Your task to perform on an android device: find which apps use the phone's location Image 0: 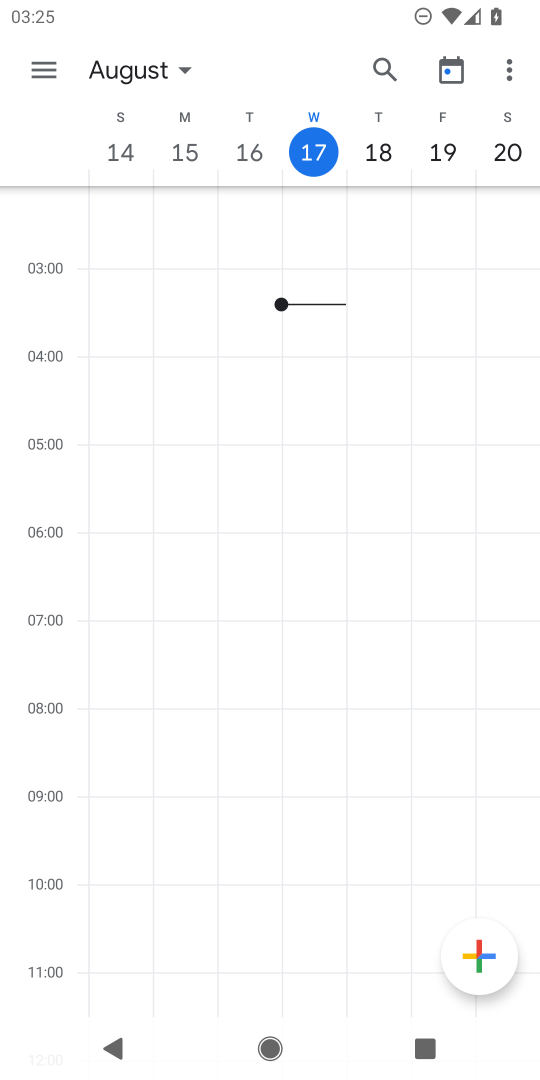
Step 0: press home button
Your task to perform on an android device: find which apps use the phone's location Image 1: 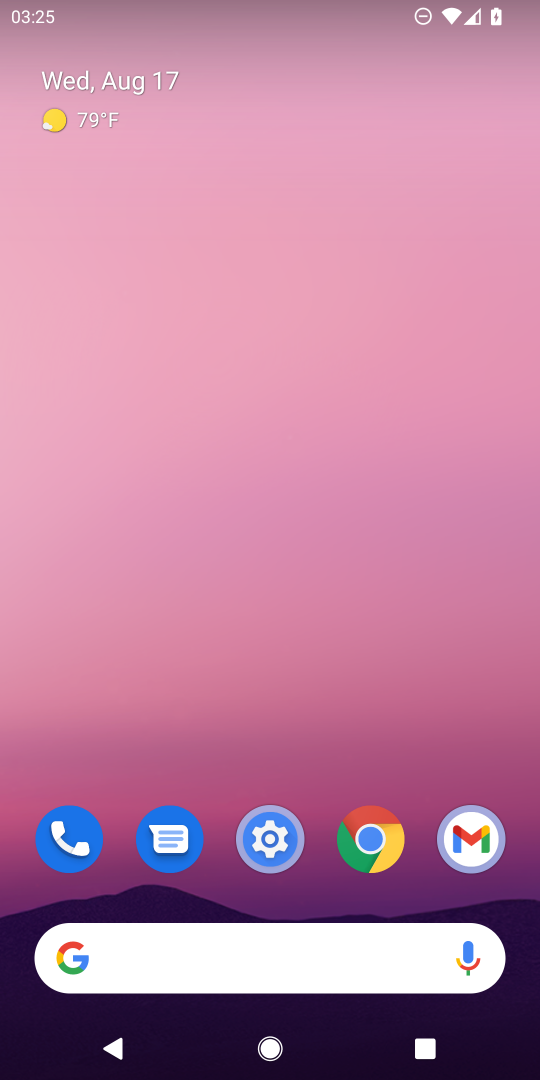
Step 1: drag from (311, 896) to (129, 10)
Your task to perform on an android device: find which apps use the phone's location Image 2: 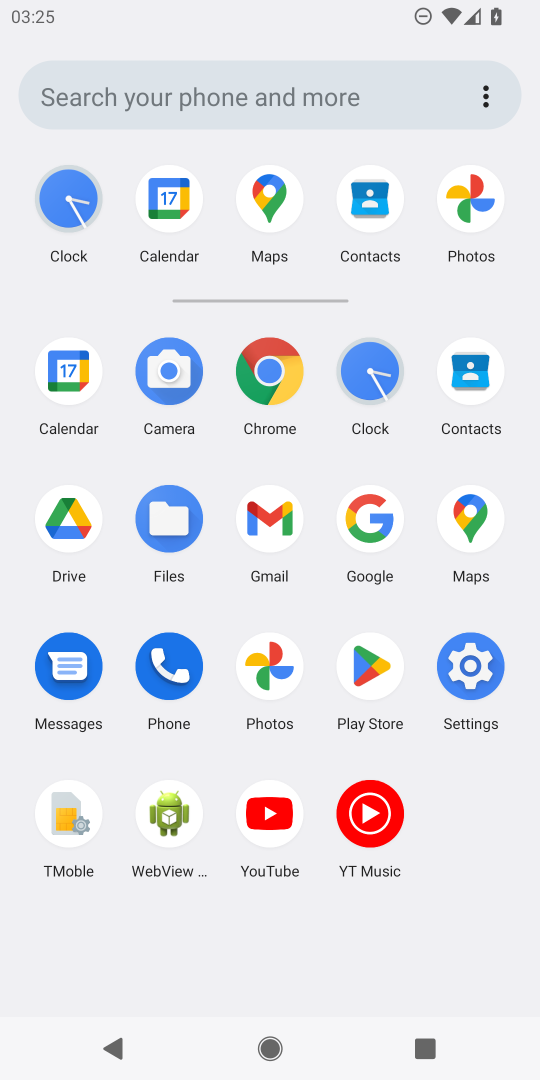
Step 2: click (483, 685)
Your task to perform on an android device: find which apps use the phone's location Image 3: 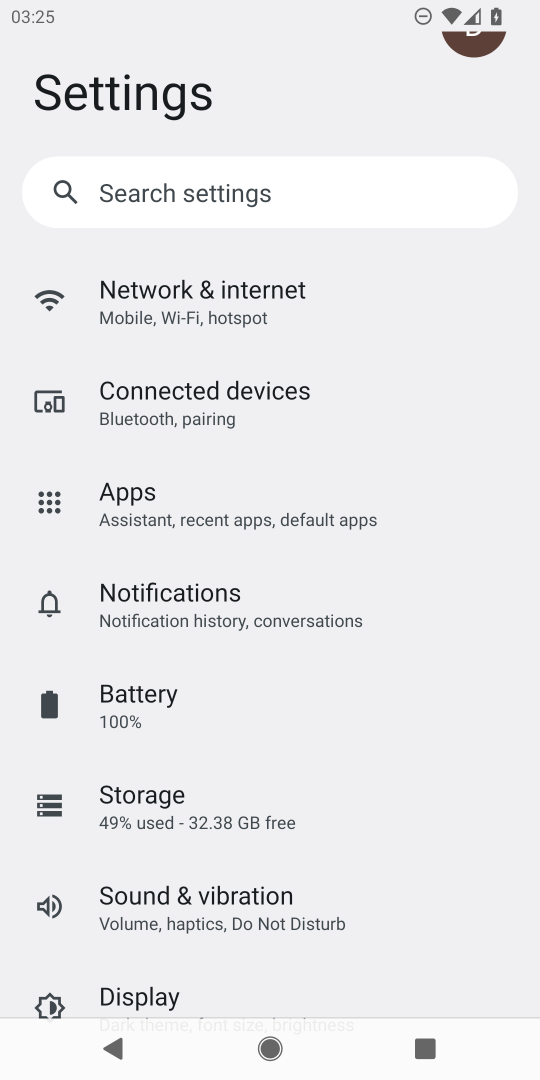
Step 3: drag from (126, 961) to (76, 486)
Your task to perform on an android device: find which apps use the phone's location Image 4: 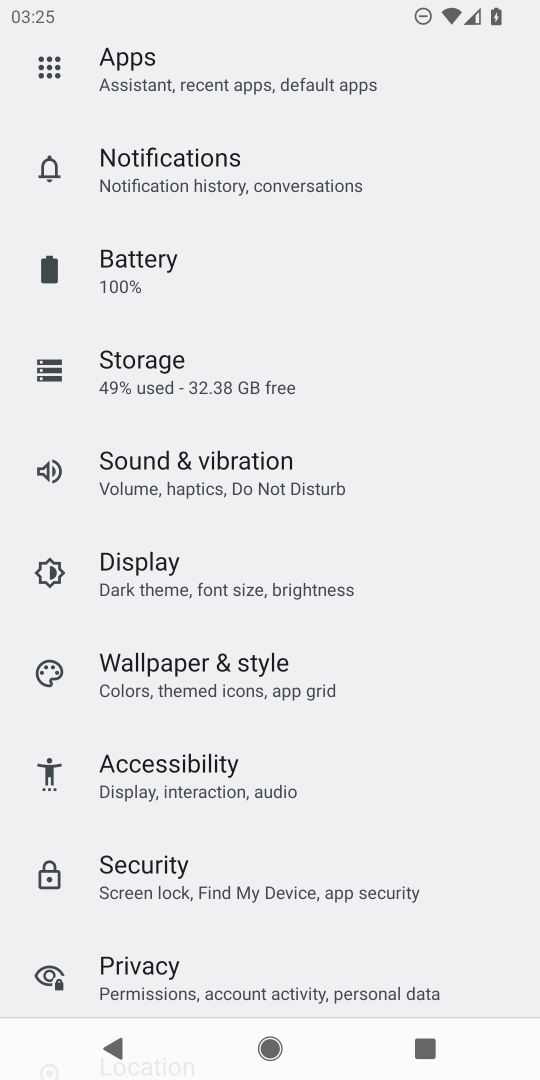
Step 4: drag from (187, 907) to (119, 308)
Your task to perform on an android device: find which apps use the phone's location Image 5: 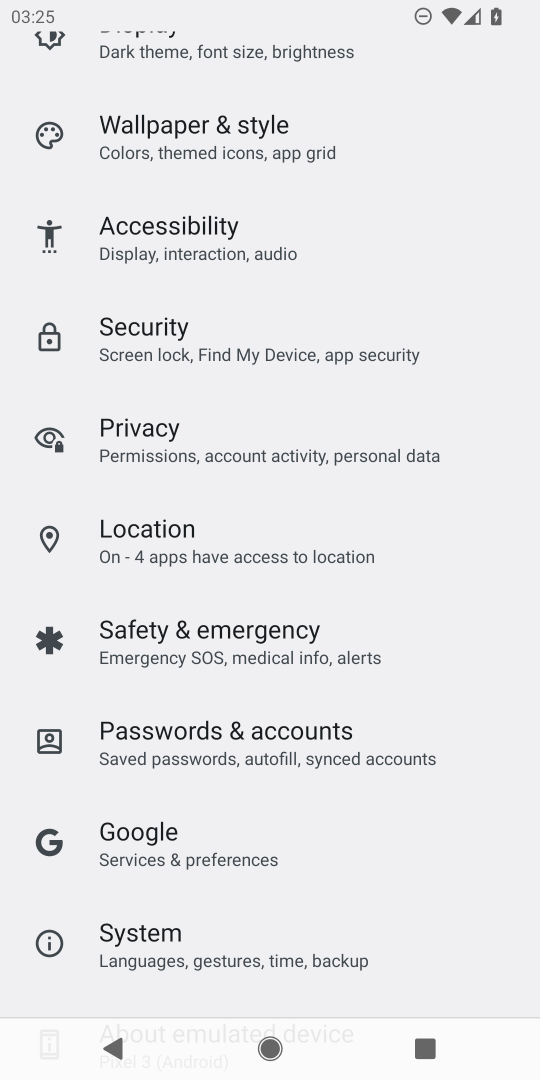
Step 5: click (167, 521)
Your task to perform on an android device: find which apps use the phone's location Image 6: 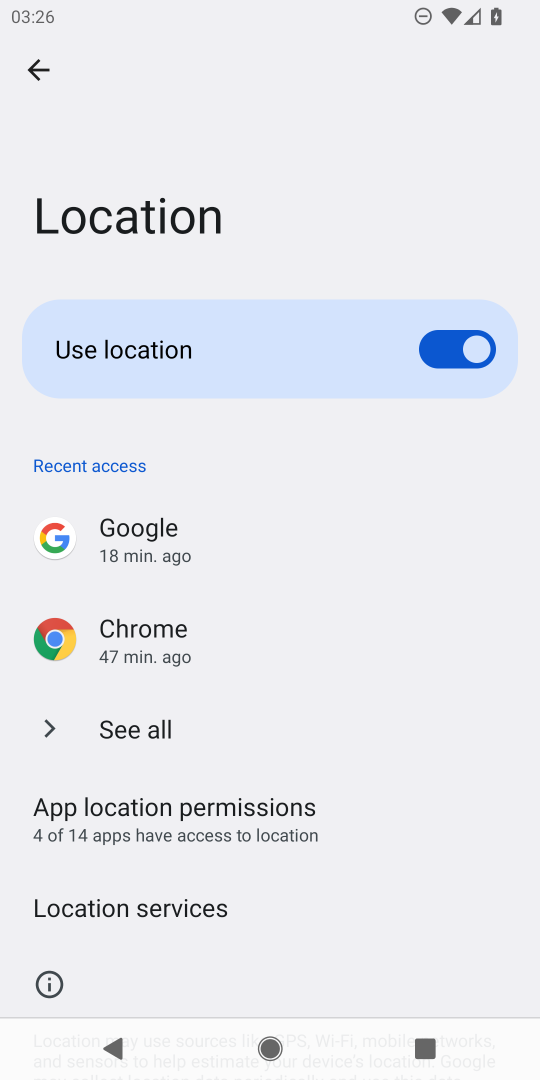
Step 6: click (176, 823)
Your task to perform on an android device: find which apps use the phone's location Image 7: 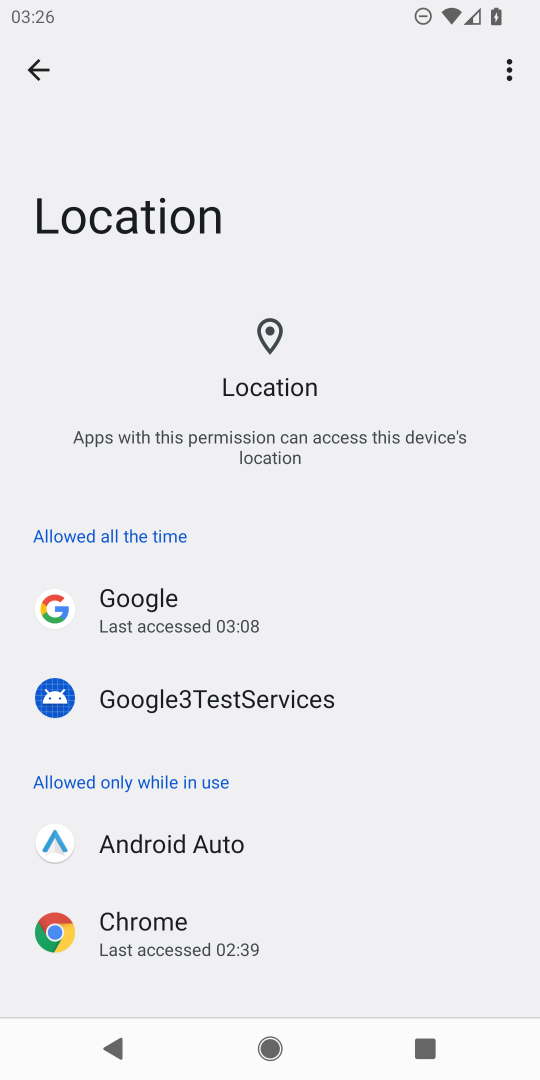
Step 7: task complete